Your task to perform on an android device: Show me productivity apps on the Play Store Image 0: 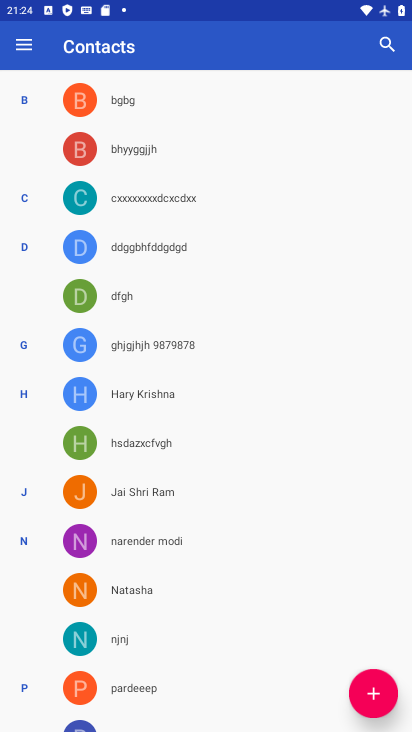
Step 0: press home button
Your task to perform on an android device: Show me productivity apps on the Play Store Image 1: 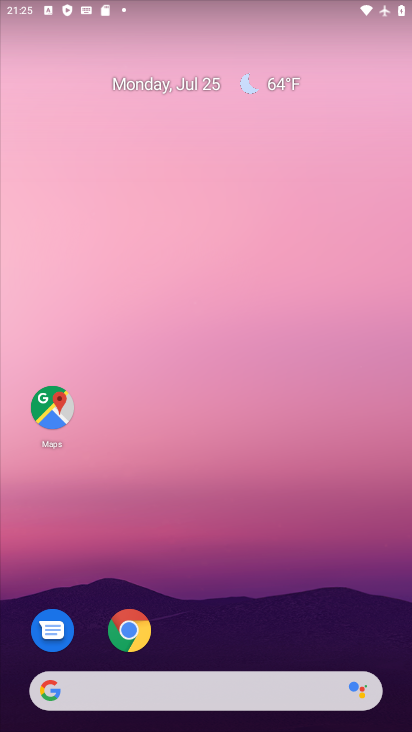
Step 1: drag from (382, 633) to (338, 207)
Your task to perform on an android device: Show me productivity apps on the Play Store Image 2: 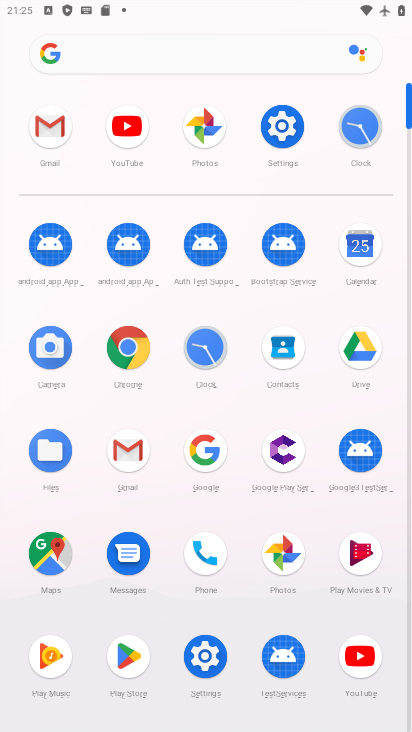
Step 2: click (133, 655)
Your task to perform on an android device: Show me productivity apps on the Play Store Image 3: 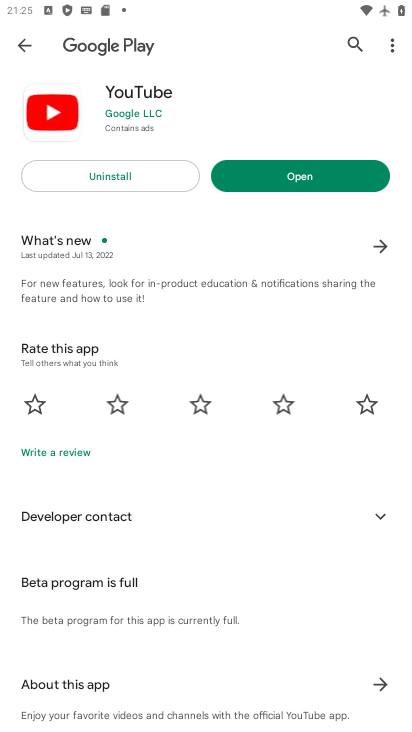
Step 3: press back button
Your task to perform on an android device: Show me productivity apps on the Play Store Image 4: 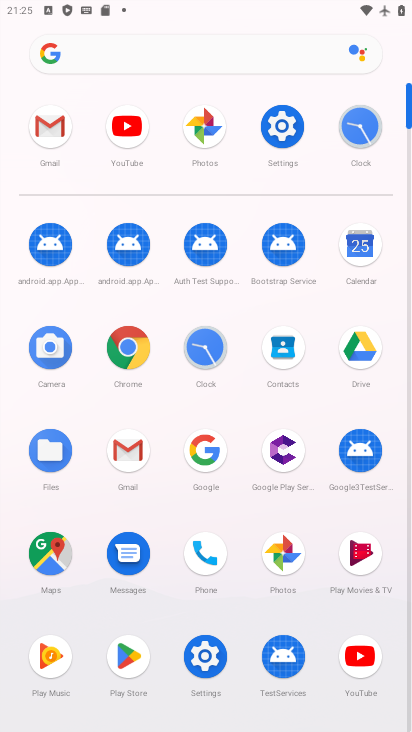
Step 4: click (131, 654)
Your task to perform on an android device: Show me productivity apps on the Play Store Image 5: 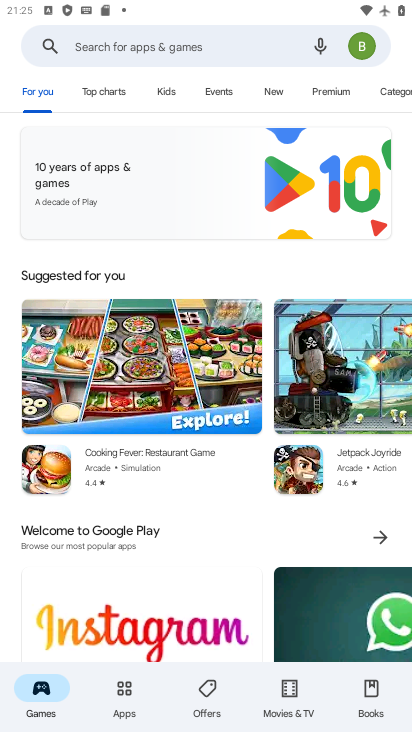
Step 5: click (122, 688)
Your task to perform on an android device: Show me productivity apps on the Play Store Image 6: 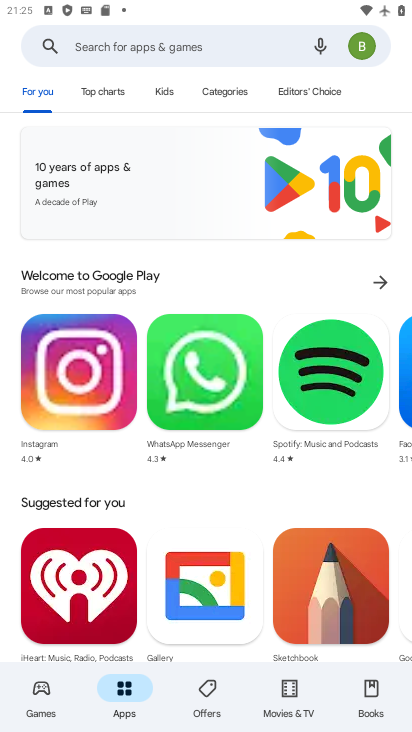
Step 6: click (223, 88)
Your task to perform on an android device: Show me productivity apps on the Play Store Image 7: 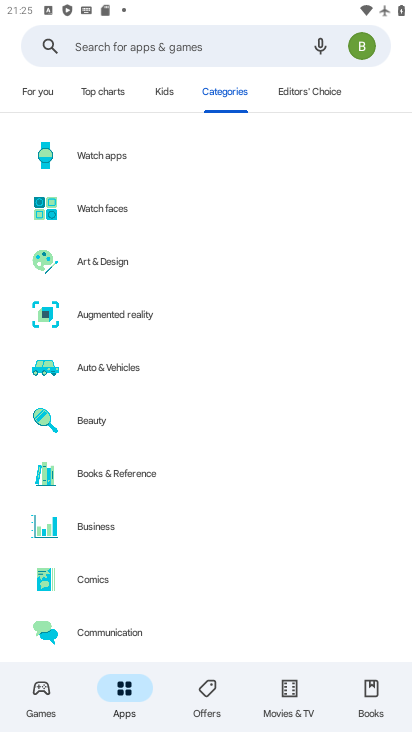
Step 7: drag from (224, 623) to (212, 197)
Your task to perform on an android device: Show me productivity apps on the Play Store Image 8: 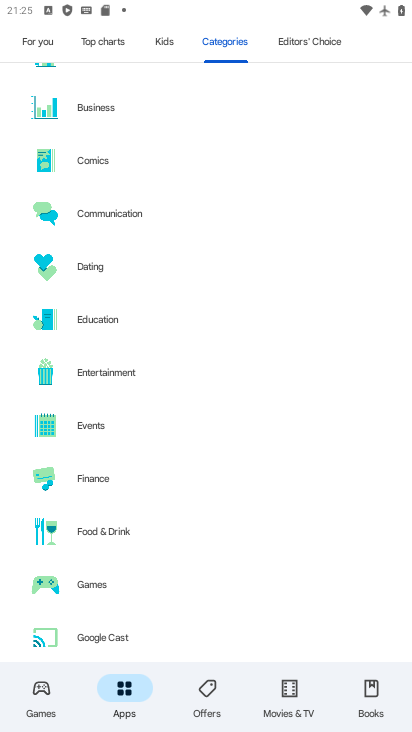
Step 8: drag from (211, 618) to (189, 132)
Your task to perform on an android device: Show me productivity apps on the Play Store Image 9: 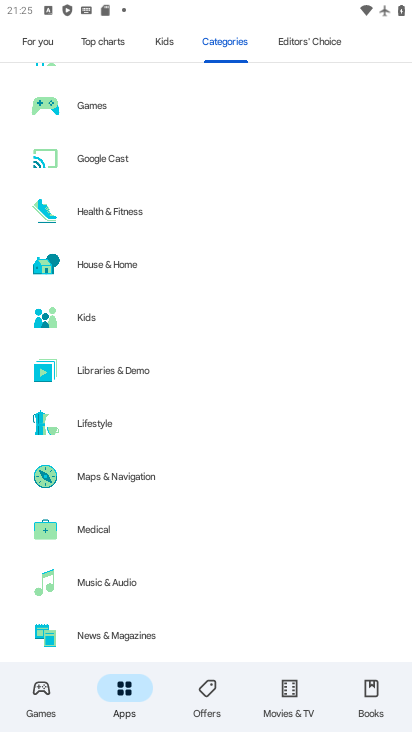
Step 9: drag from (208, 605) to (234, 219)
Your task to perform on an android device: Show me productivity apps on the Play Store Image 10: 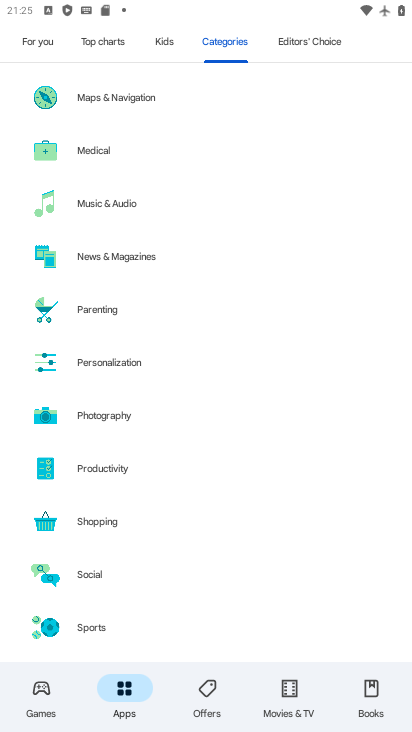
Step 10: click (92, 468)
Your task to perform on an android device: Show me productivity apps on the Play Store Image 11: 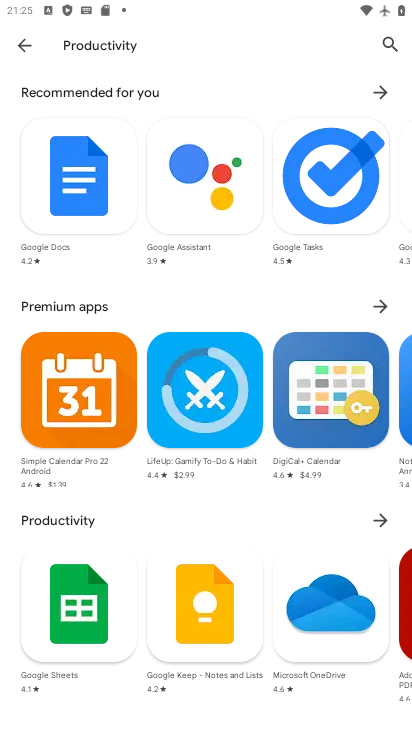
Step 11: click (382, 518)
Your task to perform on an android device: Show me productivity apps on the Play Store Image 12: 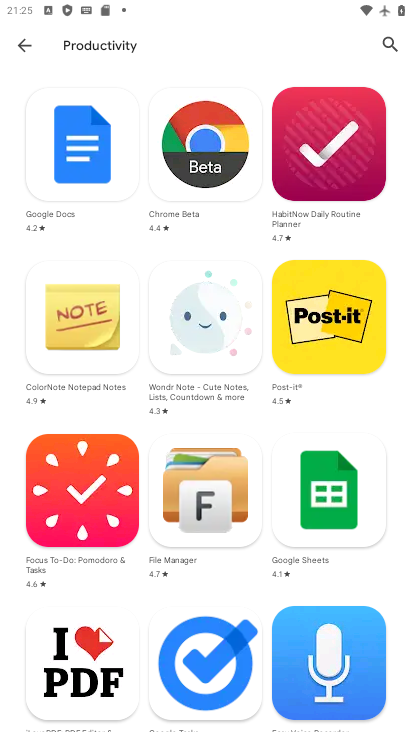
Step 12: task complete